Your task to perform on an android device: open app "VLC for Android" (install if not already installed), go to login, and select forgot password Image 0: 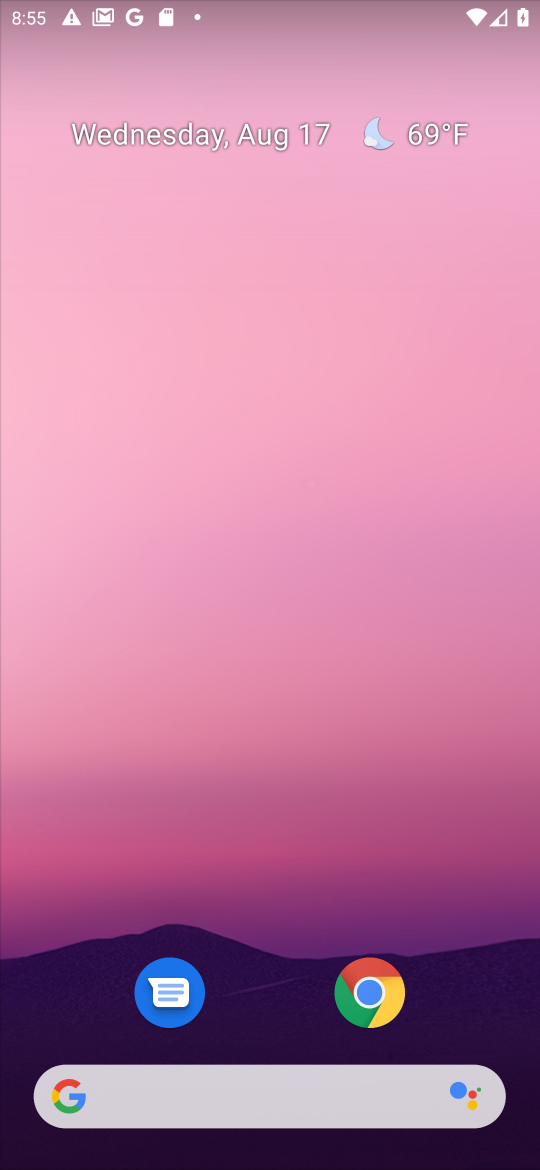
Step 0: drag from (475, 1007) to (192, 40)
Your task to perform on an android device: open app "VLC for Android" (install if not already installed), go to login, and select forgot password Image 1: 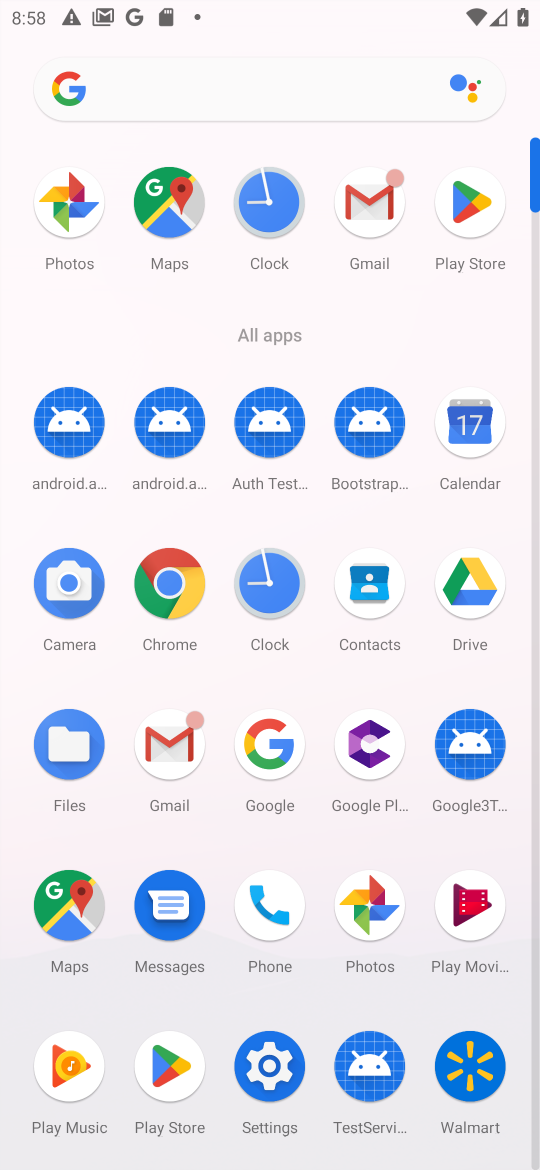
Step 1: click (142, 1034)
Your task to perform on an android device: open app "VLC for Android" (install if not already installed), go to login, and select forgot password Image 2: 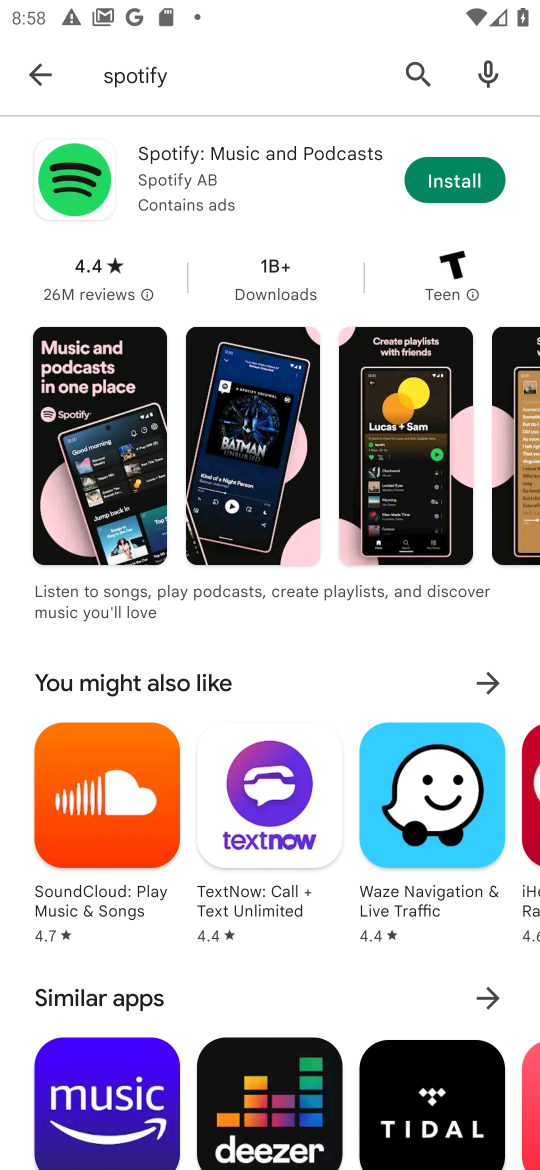
Step 2: press back button
Your task to perform on an android device: open app "VLC for Android" (install if not already installed), go to login, and select forgot password Image 3: 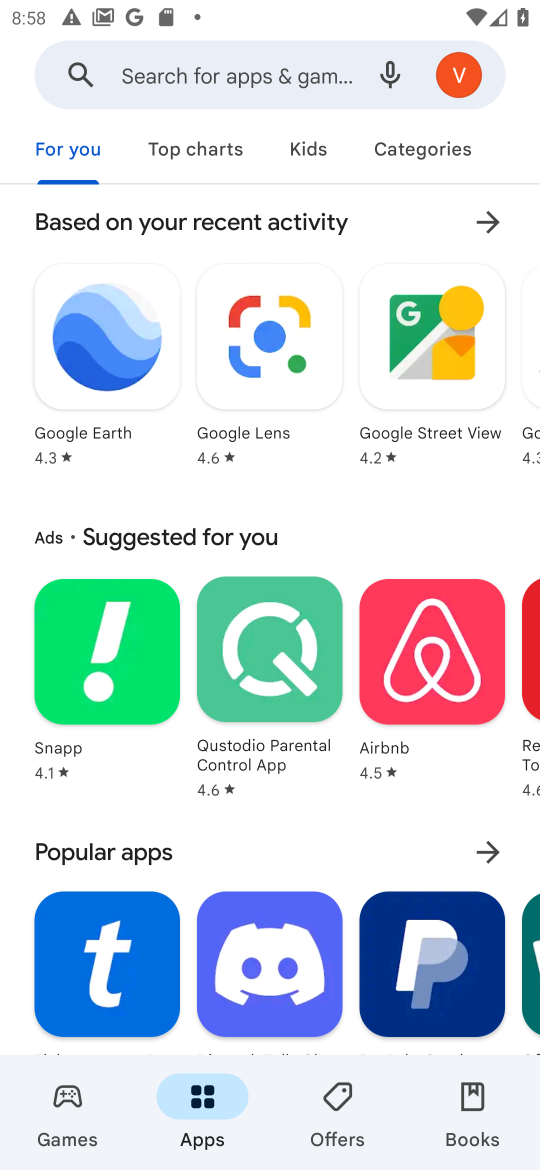
Step 3: click (227, 84)
Your task to perform on an android device: open app "VLC for Android" (install if not already installed), go to login, and select forgot password Image 4: 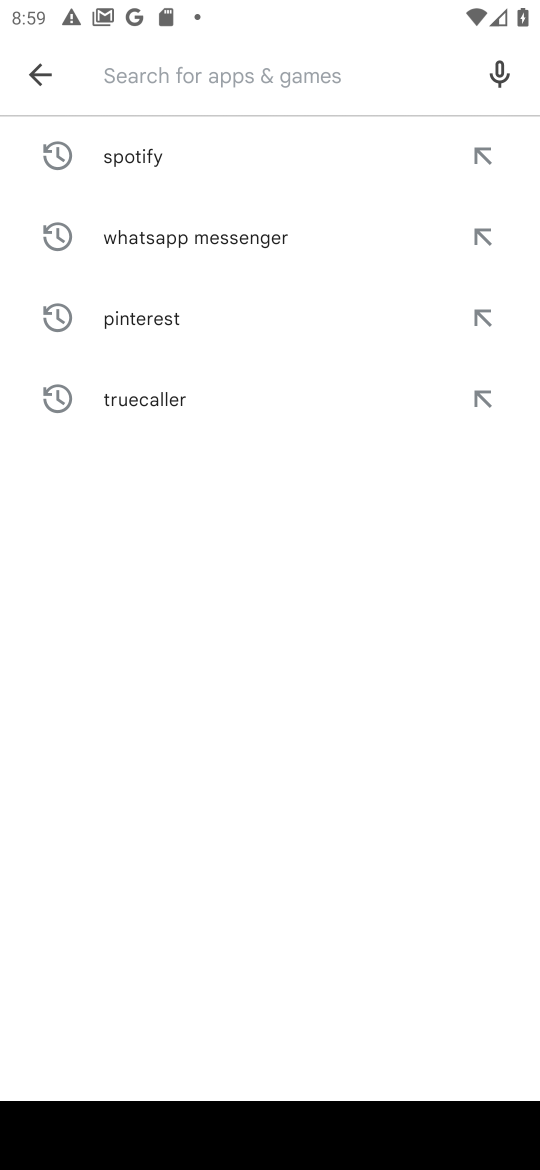
Step 4: type "VLC for Android"
Your task to perform on an android device: open app "VLC for Android" (install if not already installed), go to login, and select forgot password Image 5: 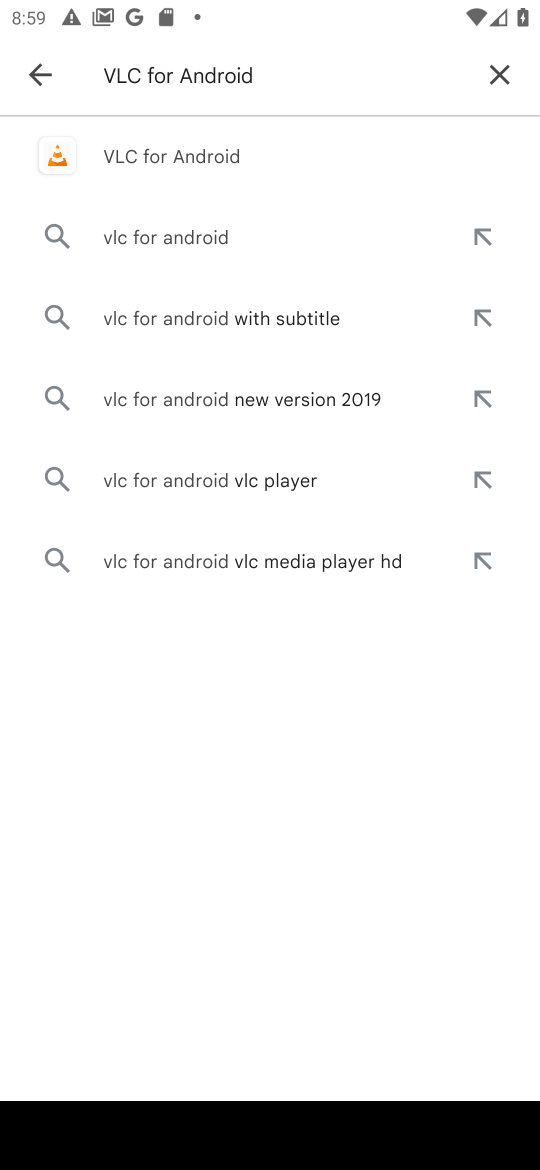
Step 5: click (206, 158)
Your task to perform on an android device: open app "VLC for Android" (install if not already installed), go to login, and select forgot password Image 6: 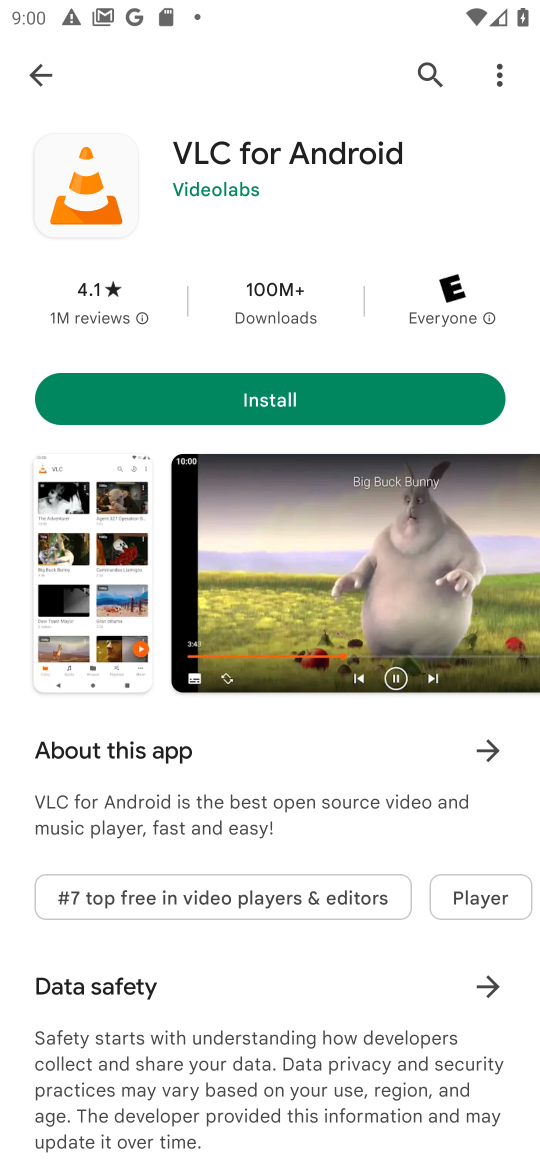
Step 6: task complete